Your task to perform on an android device: check google app version Image 0: 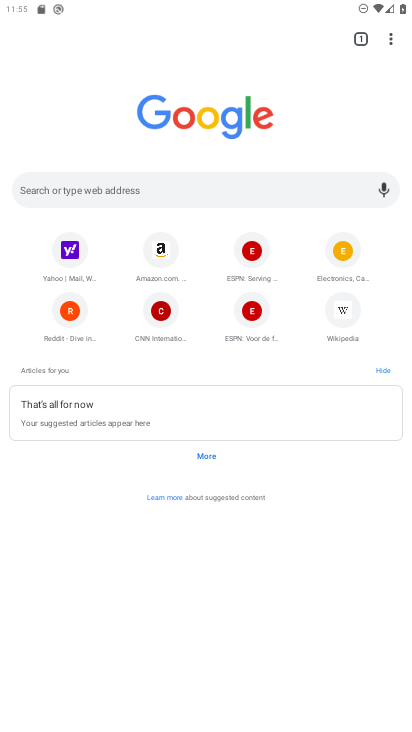
Step 0: drag from (266, 719) to (229, 321)
Your task to perform on an android device: check google app version Image 1: 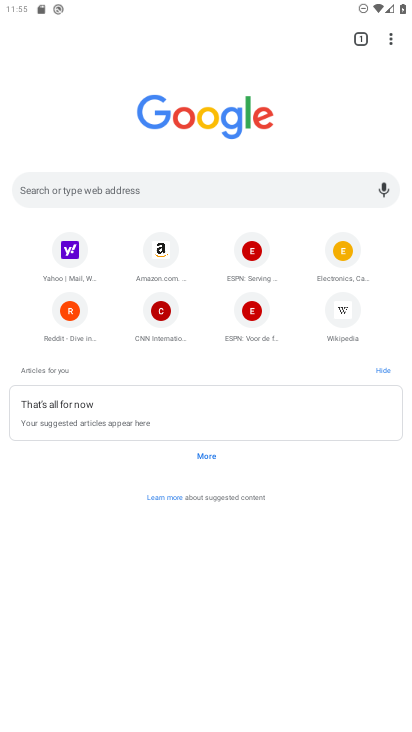
Step 1: press home button
Your task to perform on an android device: check google app version Image 2: 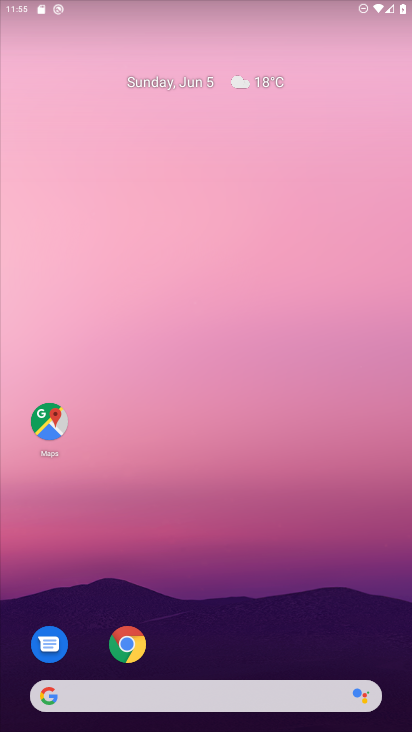
Step 2: drag from (208, 696) to (177, 299)
Your task to perform on an android device: check google app version Image 3: 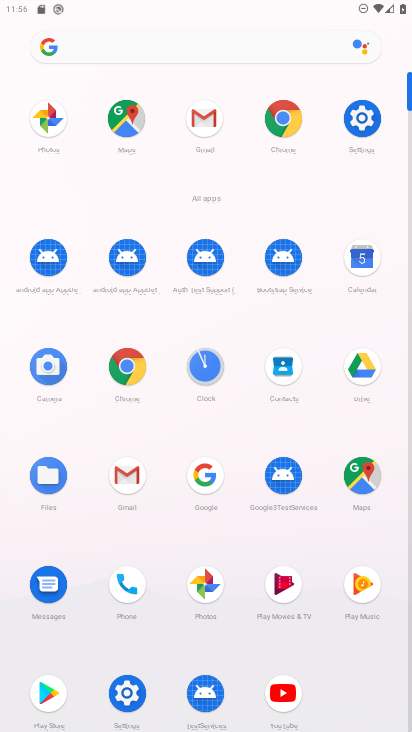
Step 3: click (278, 118)
Your task to perform on an android device: check google app version Image 4: 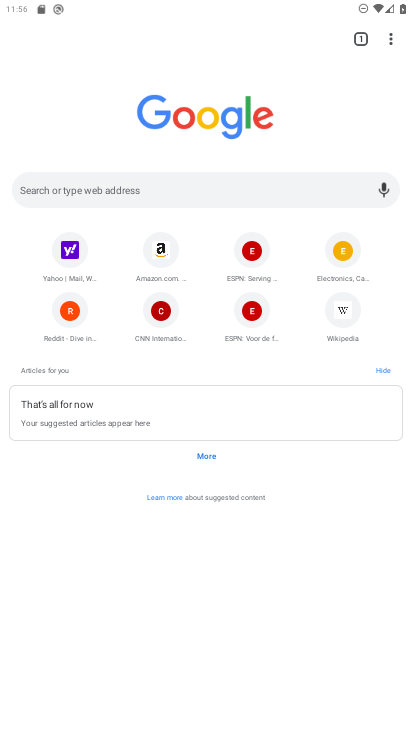
Step 4: click (386, 45)
Your task to perform on an android device: check google app version Image 5: 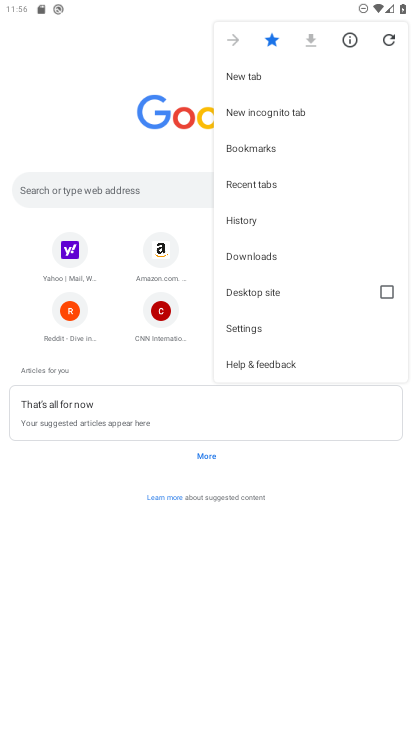
Step 5: click (259, 327)
Your task to perform on an android device: check google app version Image 6: 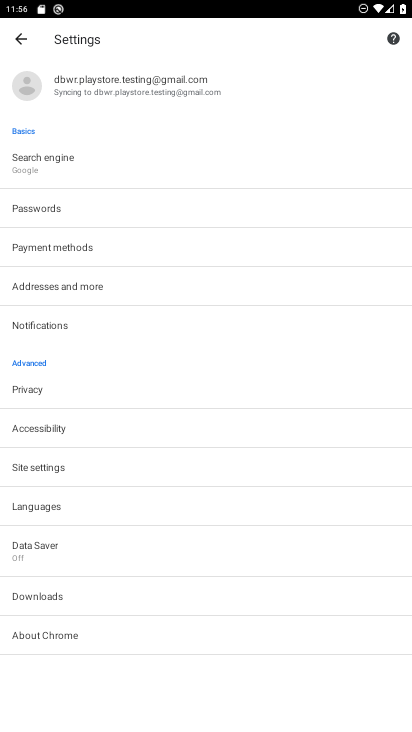
Step 6: click (84, 635)
Your task to perform on an android device: check google app version Image 7: 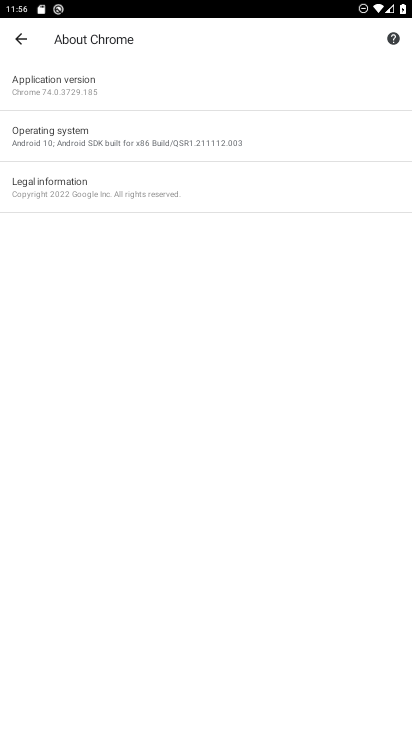
Step 7: click (70, 77)
Your task to perform on an android device: check google app version Image 8: 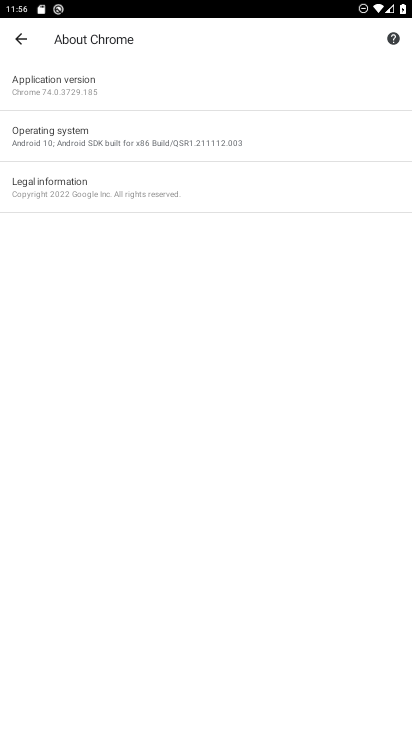
Step 8: task complete